Your task to perform on an android device: What is the news today? Image 0: 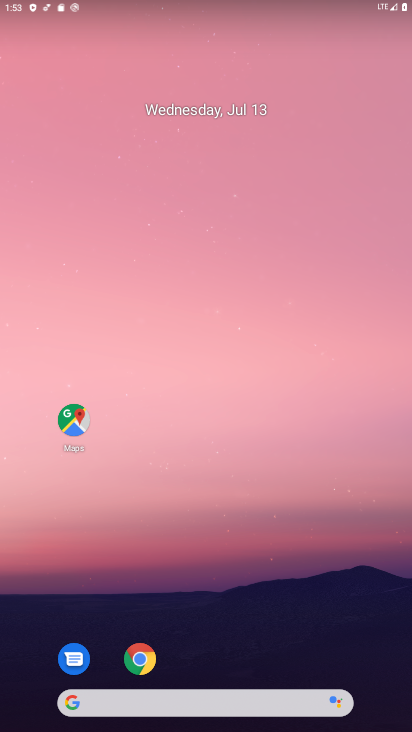
Step 0: drag from (3, 289) to (394, 297)
Your task to perform on an android device: What is the news today? Image 1: 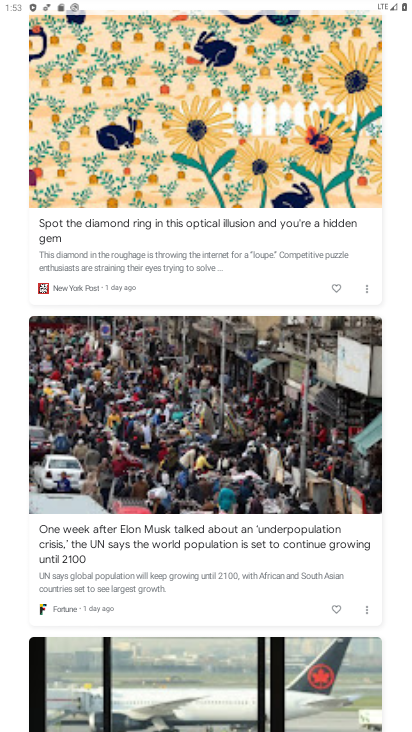
Step 1: task complete